Your task to perform on an android device: refresh tabs in the chrome app Image 0: 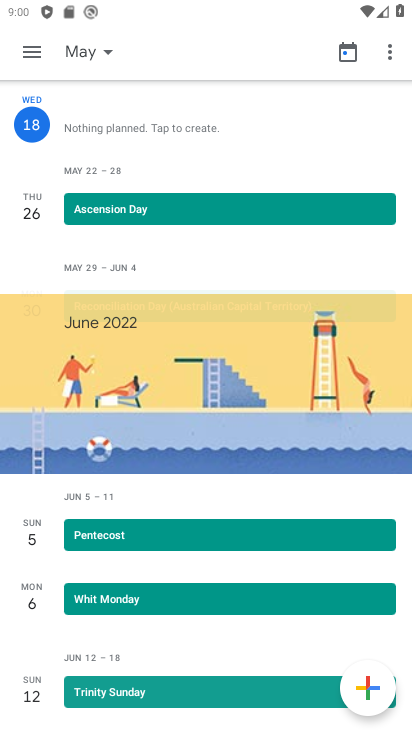
Step 0: press home button
Your task to perform on an android device: refresh tabs in the chrome app Image 1: 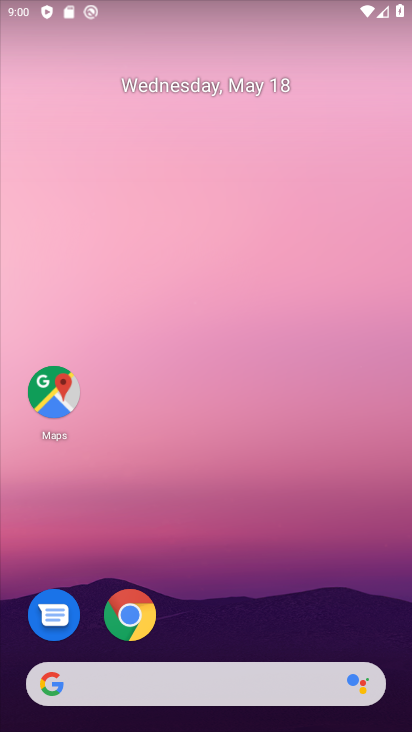
Step 1: click (141, 621)
Your task to perform on an android device: refresh tabs in the chrome app Image 2: 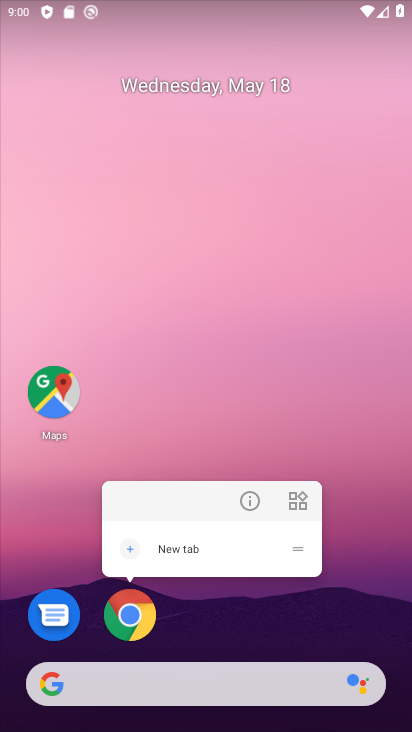
Step 2: click (137, 593)
Your task to perform on an android device: refresh tabs in the chrome app Image 3: 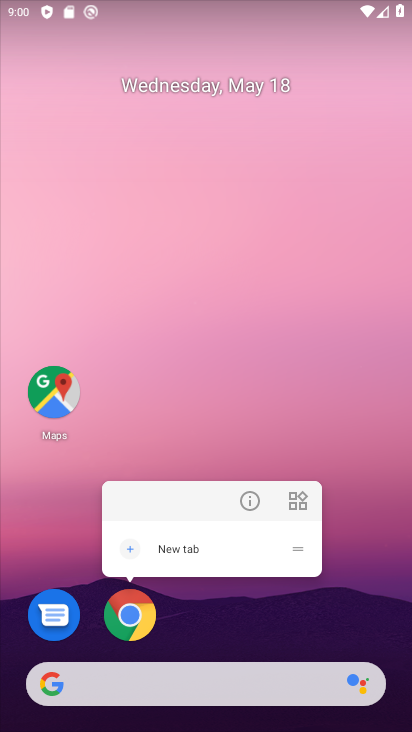
Step 3: click (137, 620)
Your task to perform on an android device: refresh tabs in the chrome app Image 4: 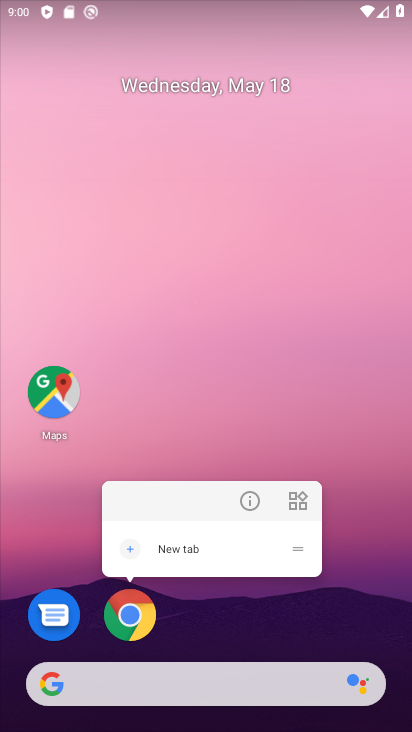
Step 4: click (132, 605)
Your task to perform on an android device: refresh tabs in the chrome app Image 5: 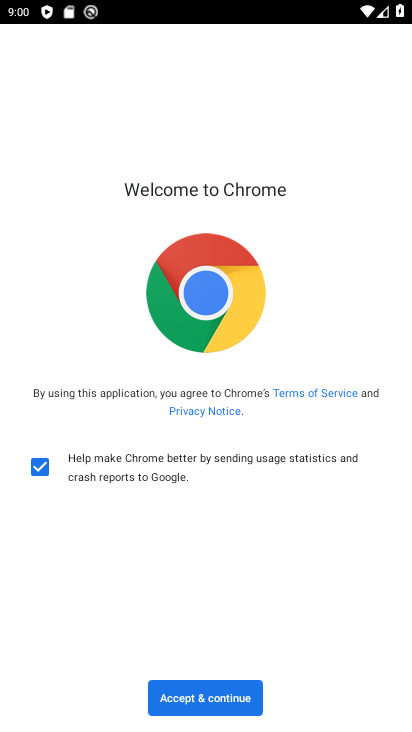
Step 5: click (175, 701)
Your task to perform on an android device: refresh tabs in the chrome app Image 6: 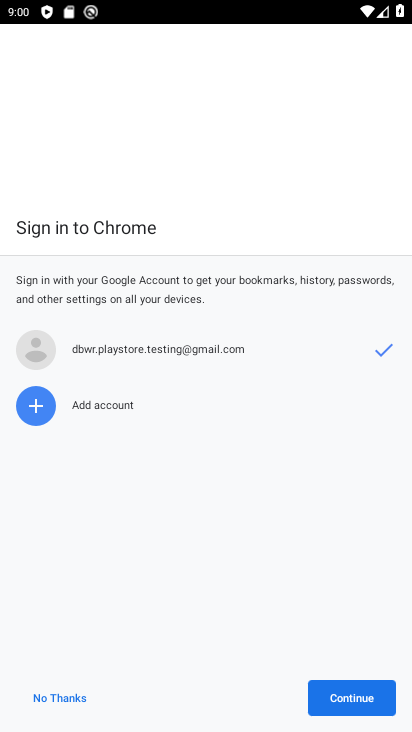
Step 6: click (337, 696)
Your task to perform on an android device: refresh tabs in the chrome app Image 7: 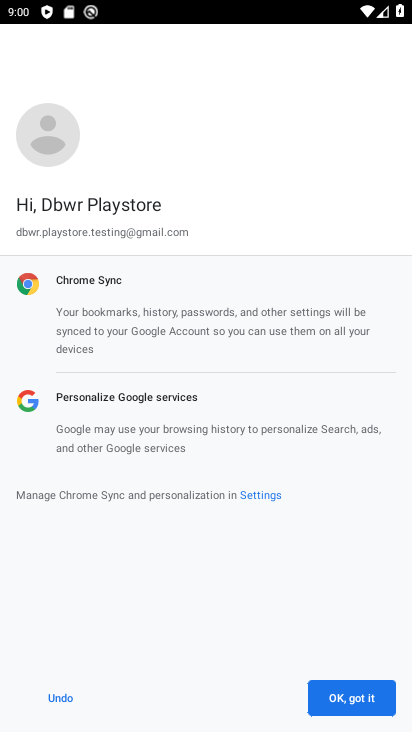
Step 7: click (337, 689)
Your task to perform on an android device: refresh tabs in the chrome app Image 8: 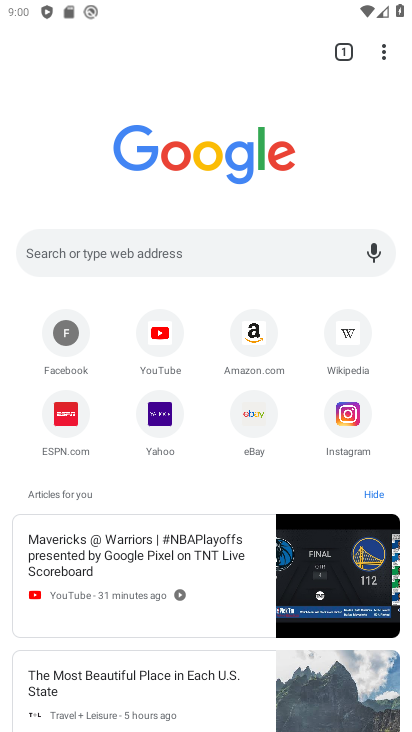
Step 8: click (381, 64)
Your task to perform on an android device: refresh tabs in the chrome app Image 9: 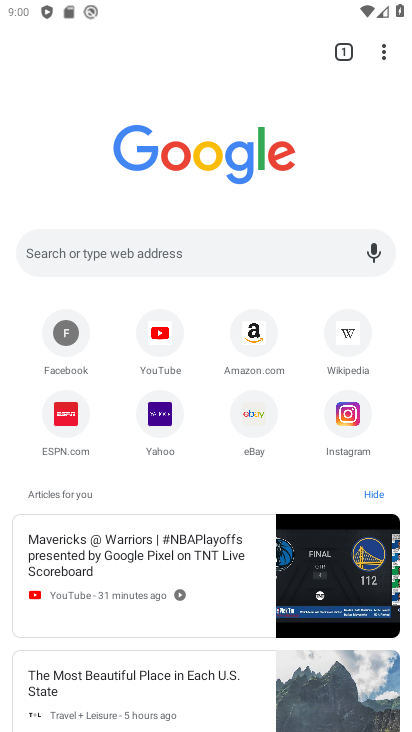
Step 9: click (383, 64)
Your task to perform on an android device: refresh tabs in the chrome app Image 10: 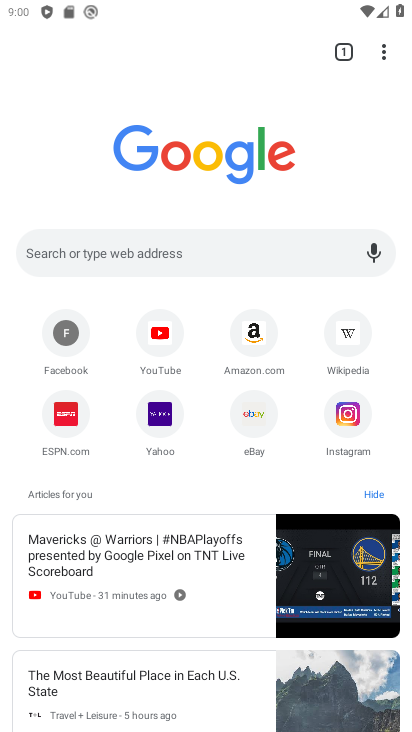
Step 10: click (382, 59)
Your task to perform on an android device: refresh tabs in the chrome app Image 11: 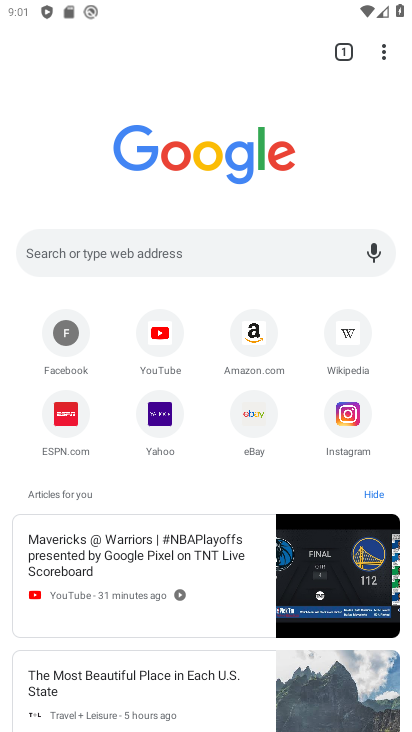
Step 11: click (383, 56)
Your task to perform on an android device: refresh tabs in the chrome app Image 12: 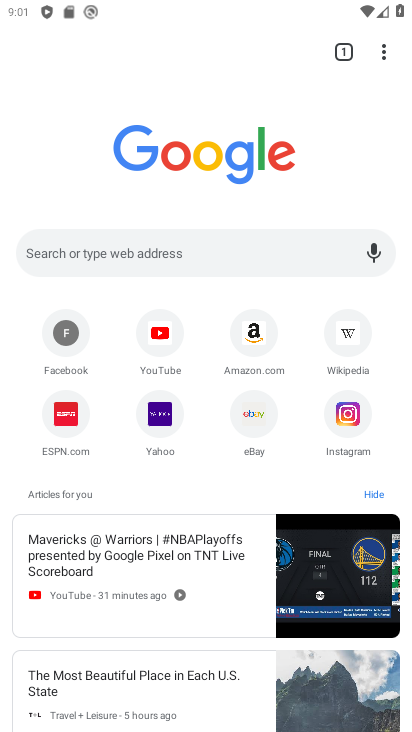
Step 12: click (383, 57)
Your task to perform on an android device: refresh tabs in the chrome app Image 13: 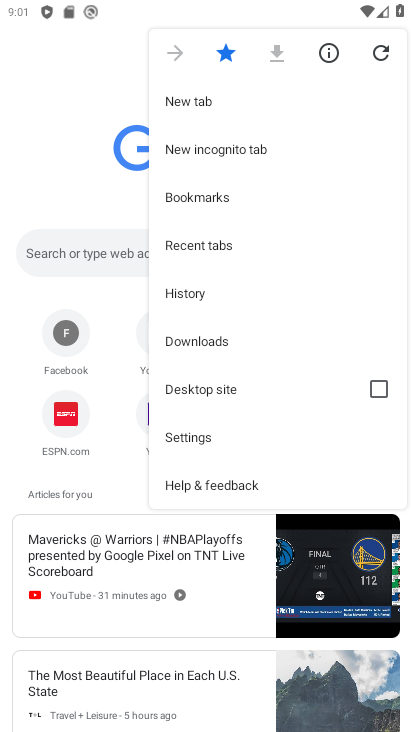
Step 13: click (374, 57)
Your task to perform on an android device: refresh tabs in the chrome app Image 14: 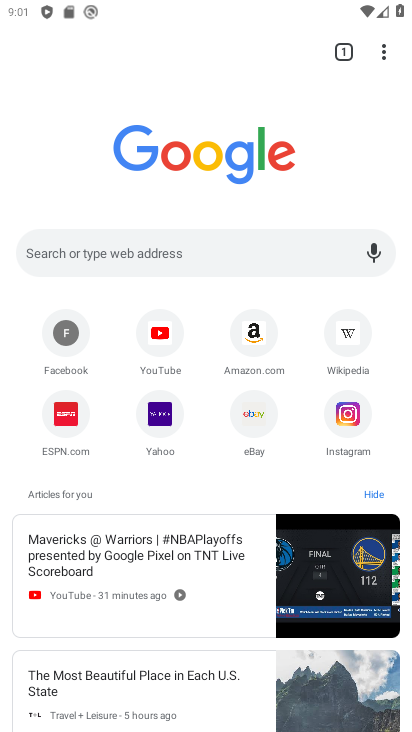
Step 14: task complete